Your task to perform on an android device: Go to internet settings Image 0: 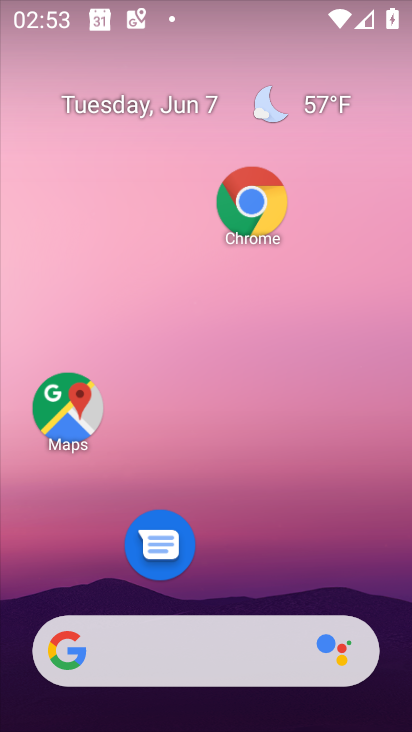
Step 0: drag from (298, 581) to (252, 336)
Your task to perform on an android device: Go to internet settings Image 1: 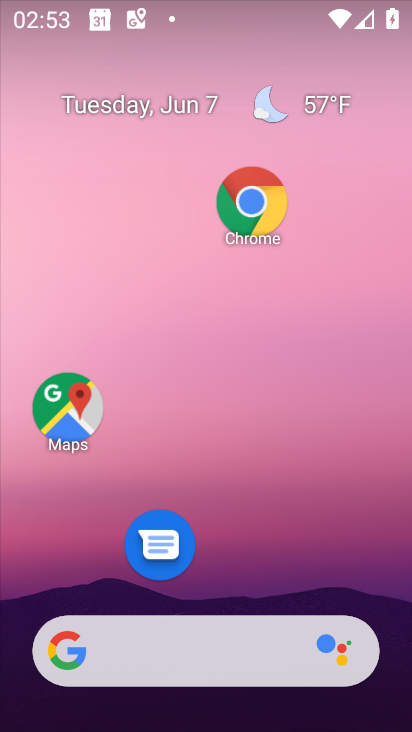
Step 1: drag from (269, 579) to (315, 245)
Your task to perform on an android device: Go to internet settings Image 2: 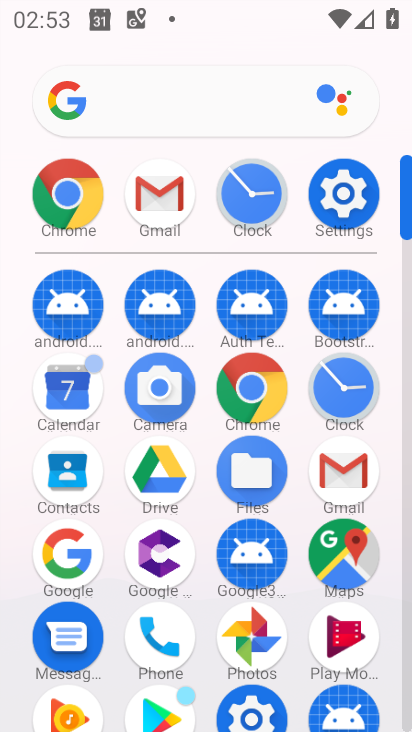
Step 2: click (338, 196)
Your task to perform on an android device: Go to internet settings Image 3: 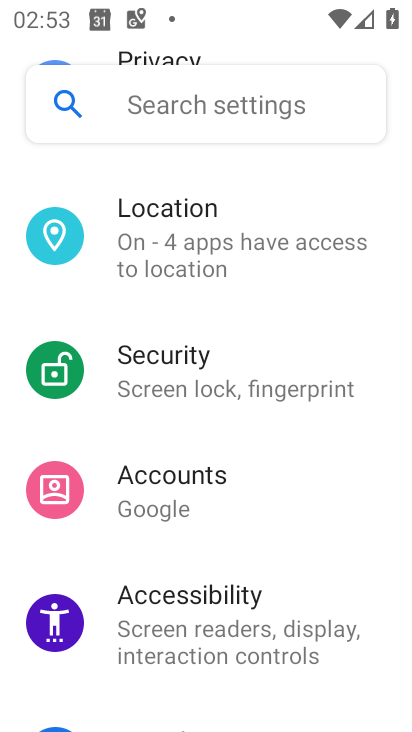
Step 3: drag from (216, 189) to (259, 589)
Your task to perform on an android device: Go to internet settings Image 4: 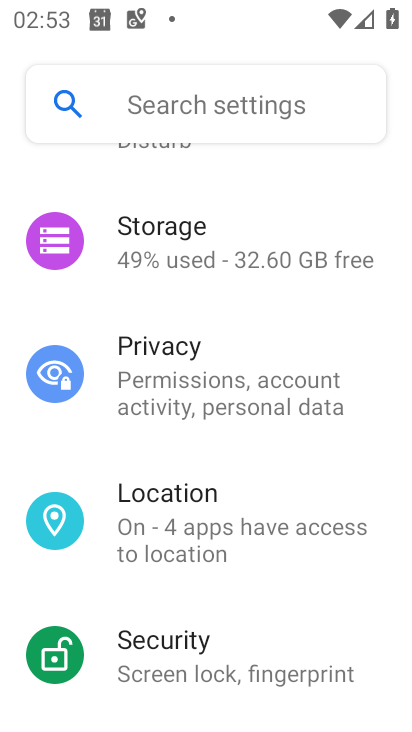
Step 4: drag from (196, 204) to (195, 567)
Your task to perform on an android device: Go to internet settings Image 5: 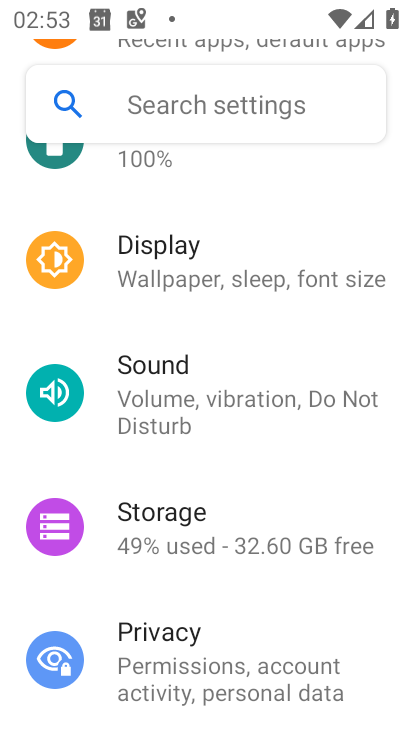
Step 5: drag from (218, 198) to (243, 569)
Your task to perform on an android device: Go to internet settings Image 6: 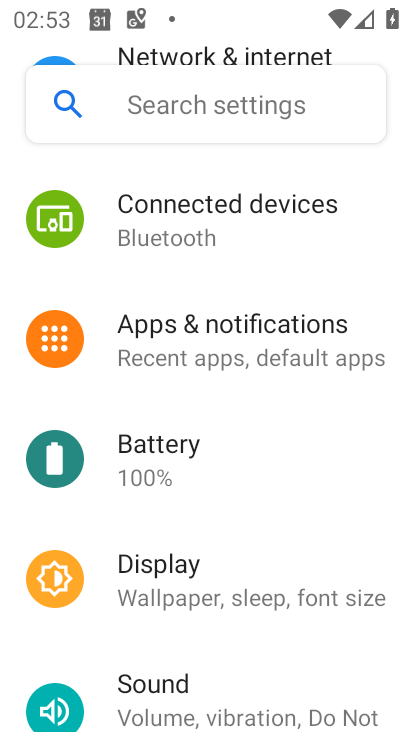
Step 6: drag from (265, 198) to (350, 665)
Your task to perform on an android device: Go to internet settings Image 7: 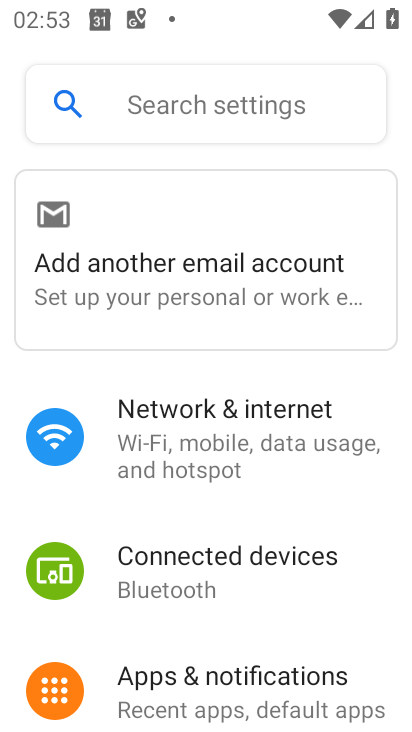
Step 7: click (269, 410)
Your task to perform on an android device: Go to internet settings Image 8: 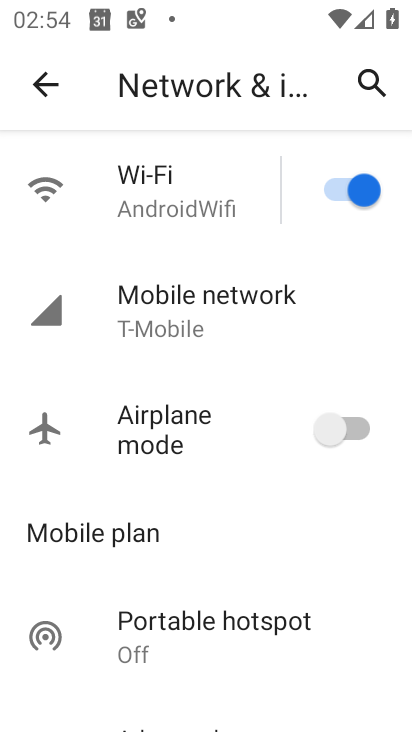
Step 8: task complete